Your task to perform on an android device: turn off data saver in the chrome app Image 0: 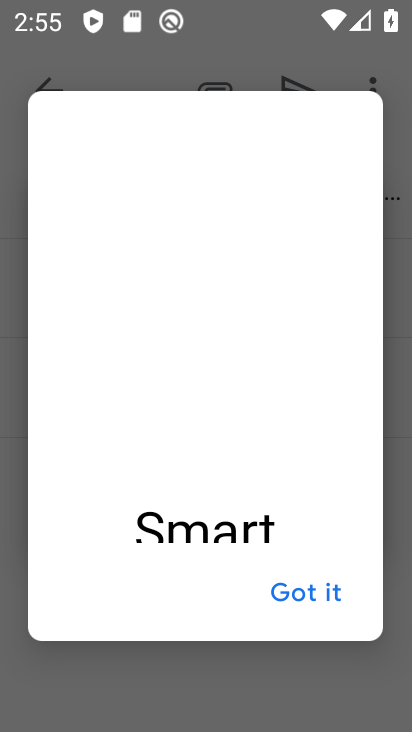
Step 0: press home button
Your task to perform on an android device: turn off data saver in the chrome app Image 1: 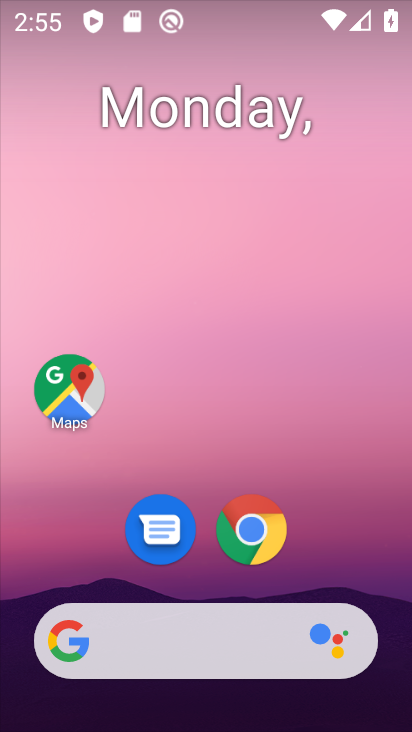
Step 1: drag from (278, 653) to (307, 228)
Your task to perform on an android device: turn off data saver in the chrome app Image 2: 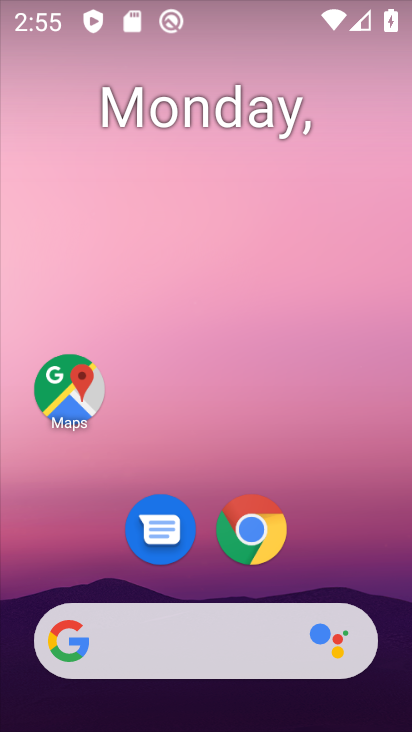
Step 2: drag from (210, 653) to (262, 37)
Your task to perform on an android device: turn off data saver in the chrome app Image 3: 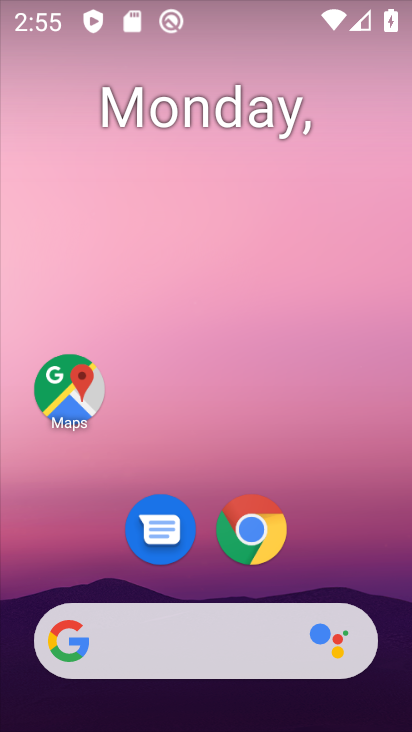
Step 3: drag from (175, 683) to (136, 21)
Your task to perform on an android device: turn off data saver in the chrome app Image 4: 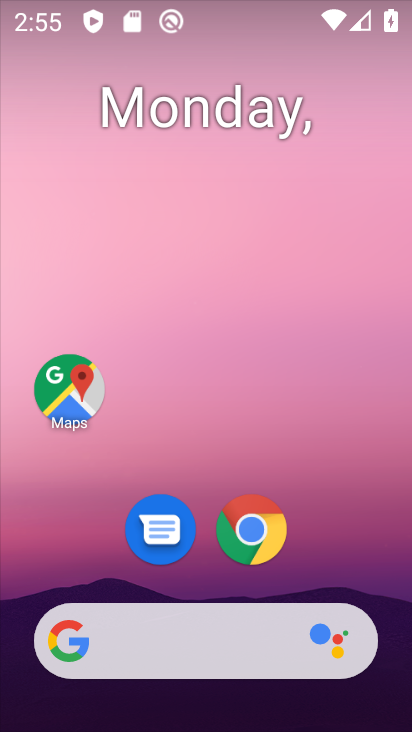
Step 4: drag from (189, 709) to (106, 40)
Your task to perform on an android device: turn off data saver in the chrome app Image 5: 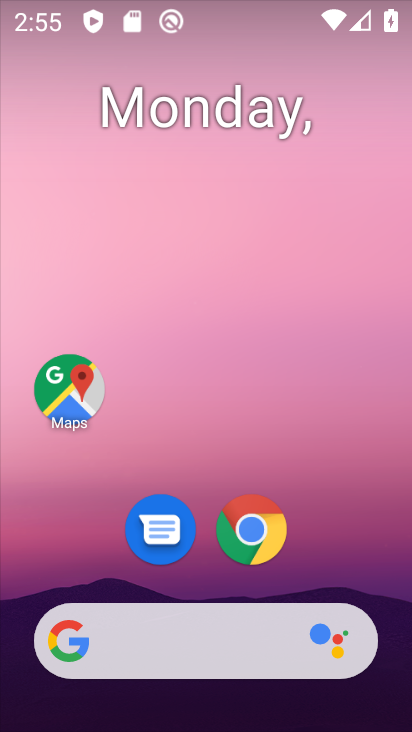
Step 5: drag from (229, 582) to (99, 1)
Your task to perform on an android device: turn off data saver in the chrome app Image 6: 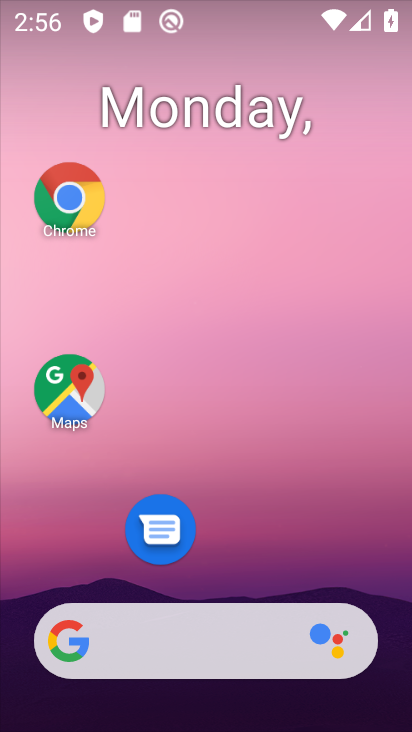
Step 6: drag from (272, 557) to (178, 13)
Your task to perform on an android device: turn off data saver in the chrome app Image 7: 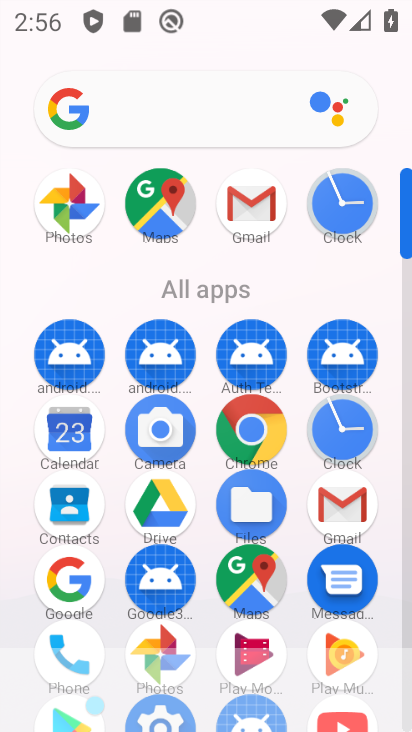
Step 7: click (252, 450)
Your task to perform on an android device: turn off data saver in the chrome app Image 8: 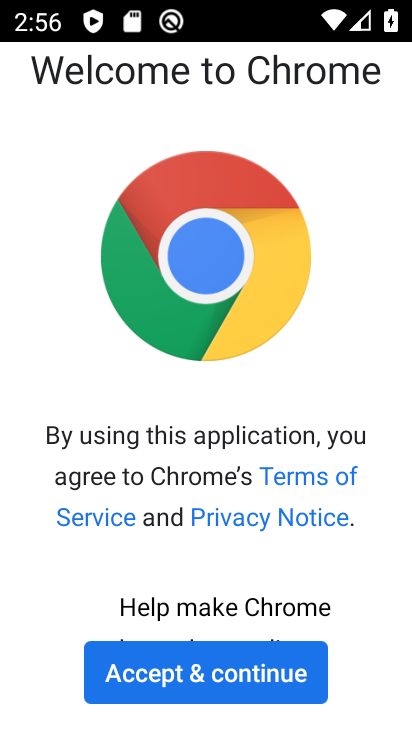
Step 8: click (203, 666)
Your task to perform on an android device: turn off data saver in the chrome app Image 9: 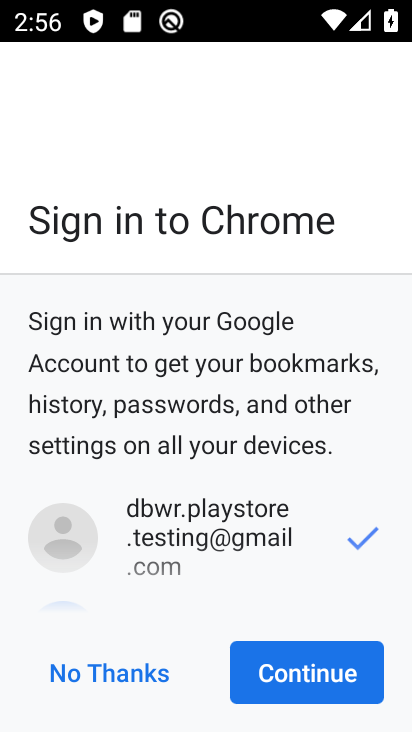
Step 9: click (318, 681)
Your task to perform on an android device: turn off data saver in the chrome app Image 10: 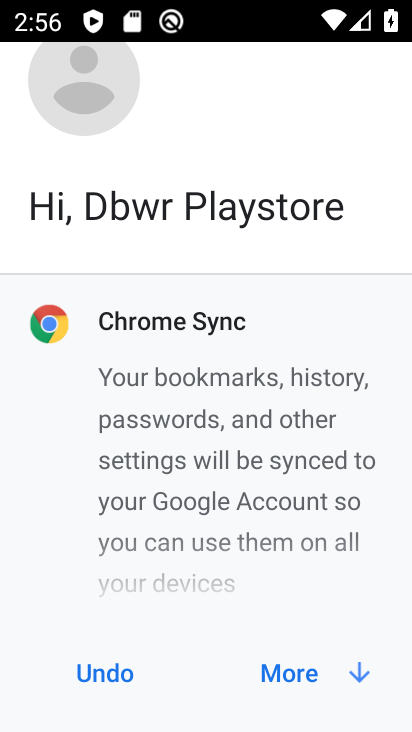
Step 10: click (318, 681)
Your task to perform on an android device: turn off data saver in the chrome app Image 11: 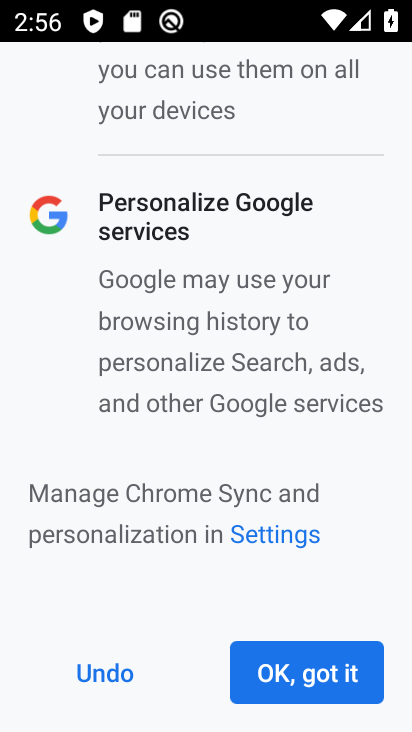
Step 11: click (317, 680)
Your task to perform on an android device: turn off data saver in the chrome app Image 12: 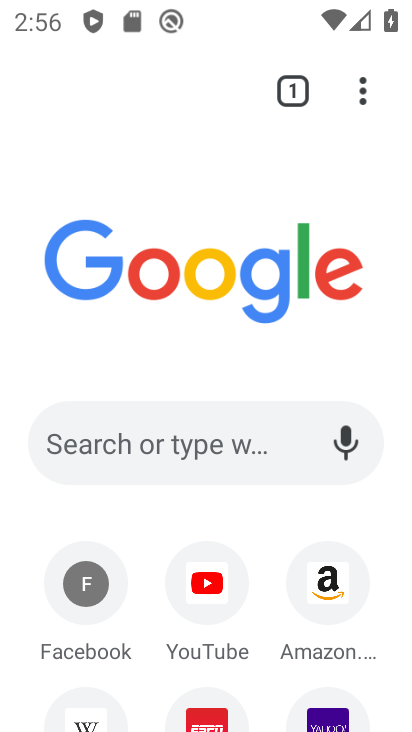
Step 12: click (368, 83)
Your task to perform on an android device: turn off data saver in the chrome app Image 13: 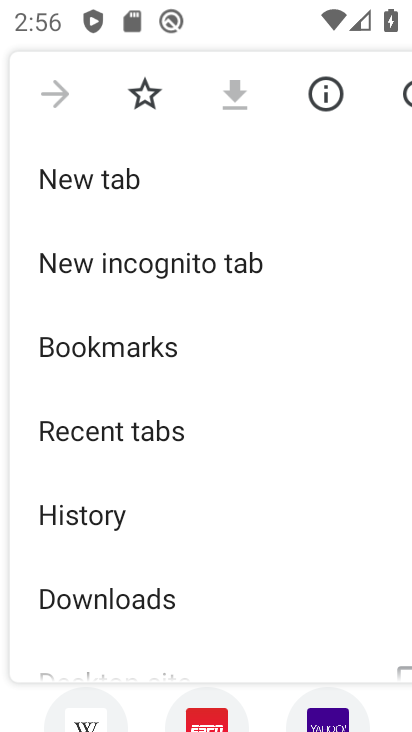
Step 13: drag from (137, 592) to (140, 374)
Your task to perform on an android device: turn off data saver in the chrome app Image 14: 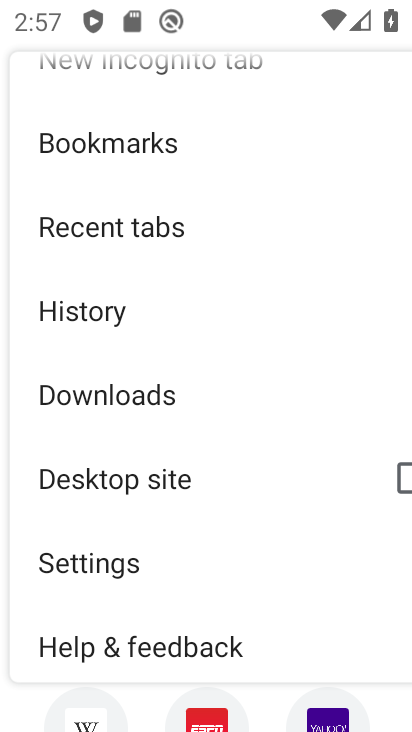
Step 14: click (136, 568)
Your task to perform on an android device: turn off data saver in the chrome app Image 15: 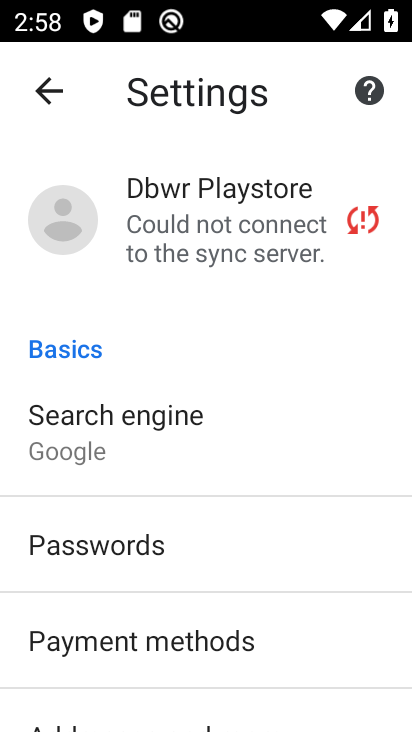
Step 15: drag from (140, 597) to (259, 2)
Your task to perform on an android device: turn off data saver in the chrome app Image 16: 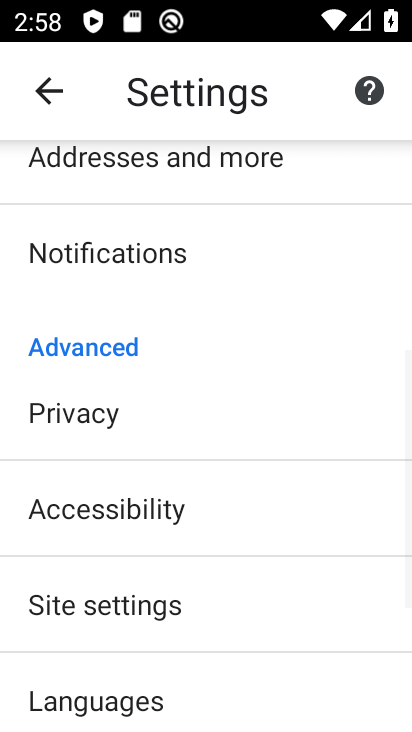
Step 16: drag from (119, 575) to (187, 159)
Your task to perform on an android device: turn off data saver in the chrome app Image 17: 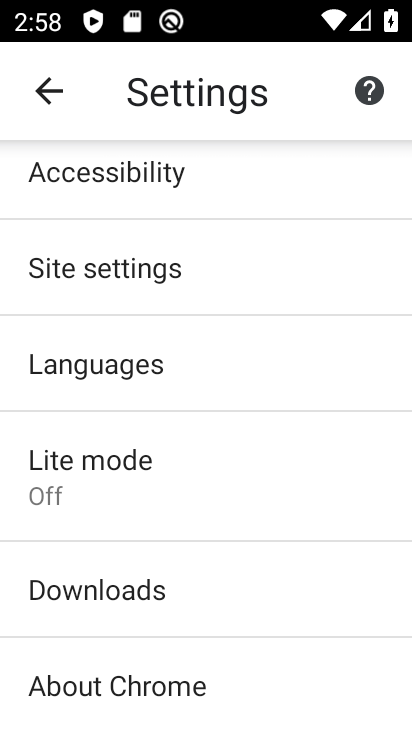
Step 17: drag from (79, 457) to (164, 78)
Your task to perform on an android device: turn off data saver in the chrome app Image 18: 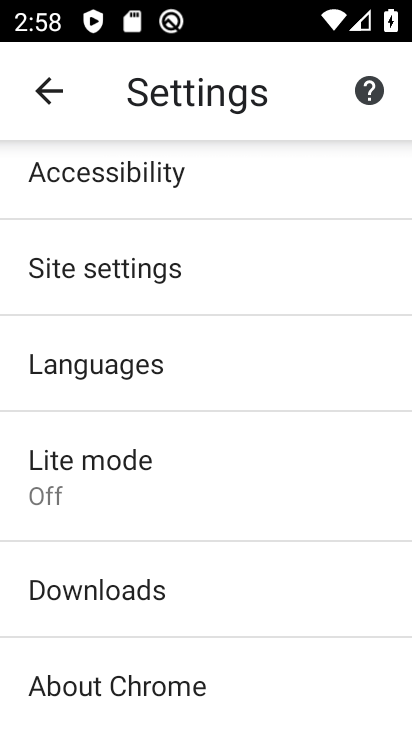
Step 18: drag from (136, 629) to (163, 337)
Your task to perform on an android device: turn off data saver in the chrome app Image 19: 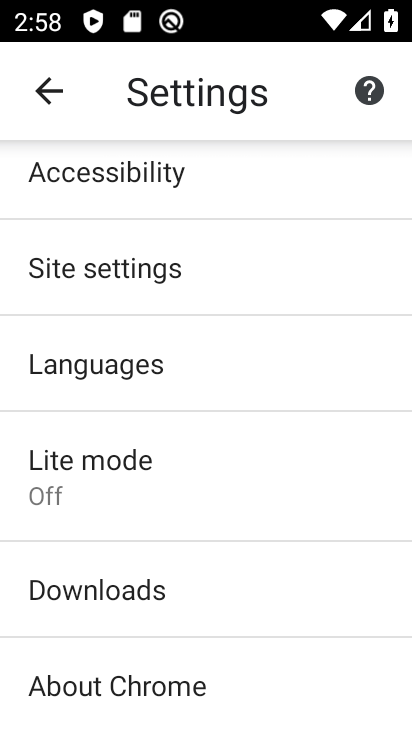
Step 19: click (171, 494)
Your task to perform on an android device: turn off data saver in the chrome app Image 20: 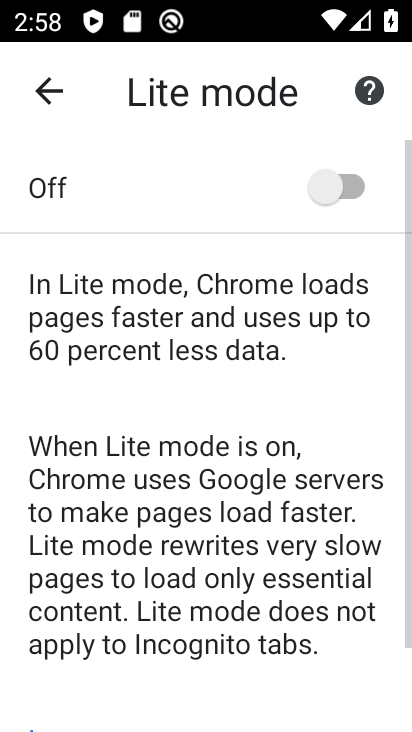
Step 20: task complete